Your task to perform on an android device: turn off improve location accuracy Image 0: 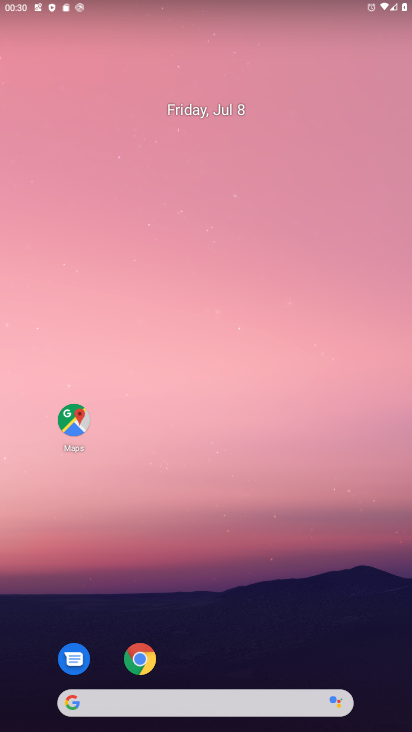
Step 0: drag from (182, 643) to (198, 53)
Your task to perform on an android device: turn off improve location accuracy Image 1: 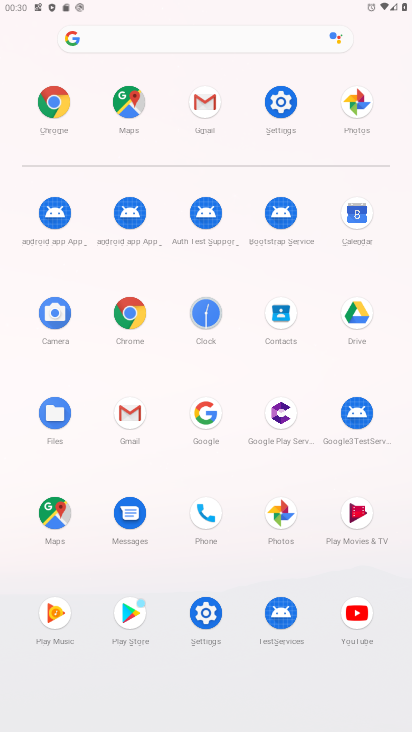
Step 1: click (281, 92)
Your task to perform on an android device: turn off improve location accuracy Image 2: 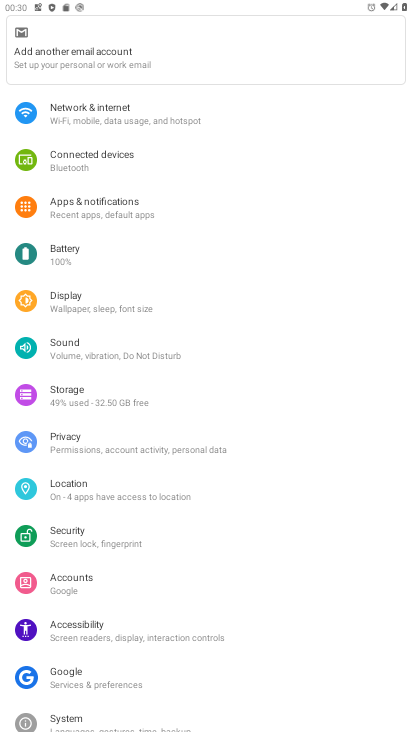
Step 2: click (66, 498)
Your task to perform on an android device: turn off improve location accuracy Image 3: 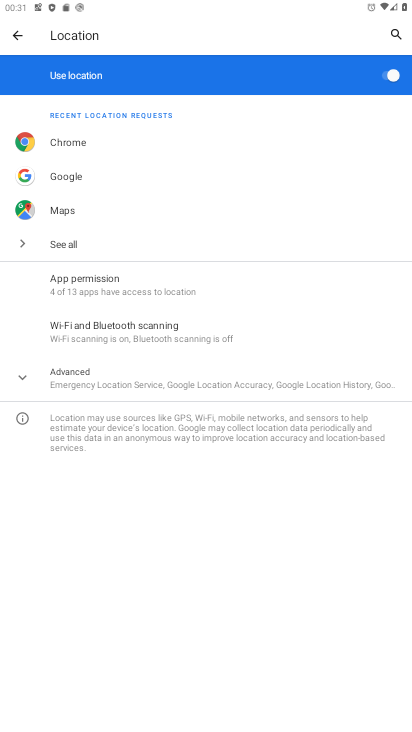
Step 3: click (167, 373)
Your task to perform on an android device: turn off improve location accuracy Image 4: 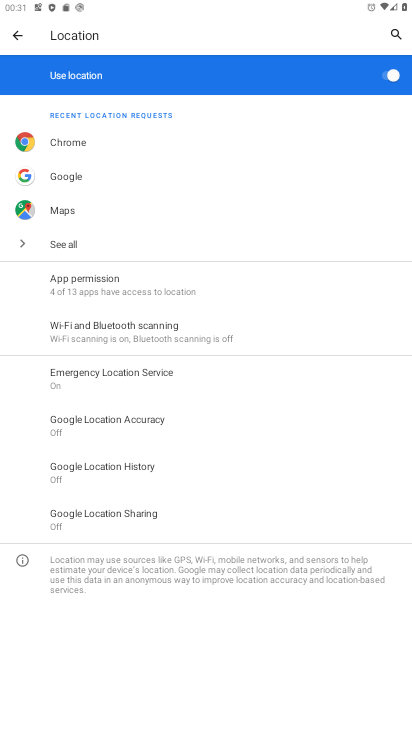
Step 4: click (178, 421)
Your task to perform on an android device: turn off improve location accuracy Image 5: 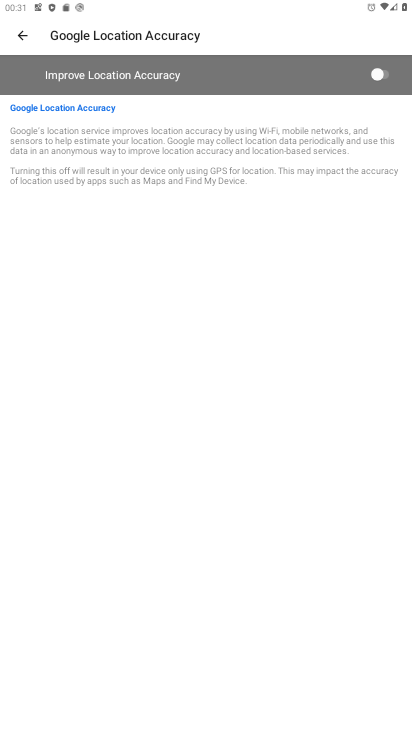
Step 5: task complete